Your task to perform on an android device: move a message to another label in the gmail app Image 0: 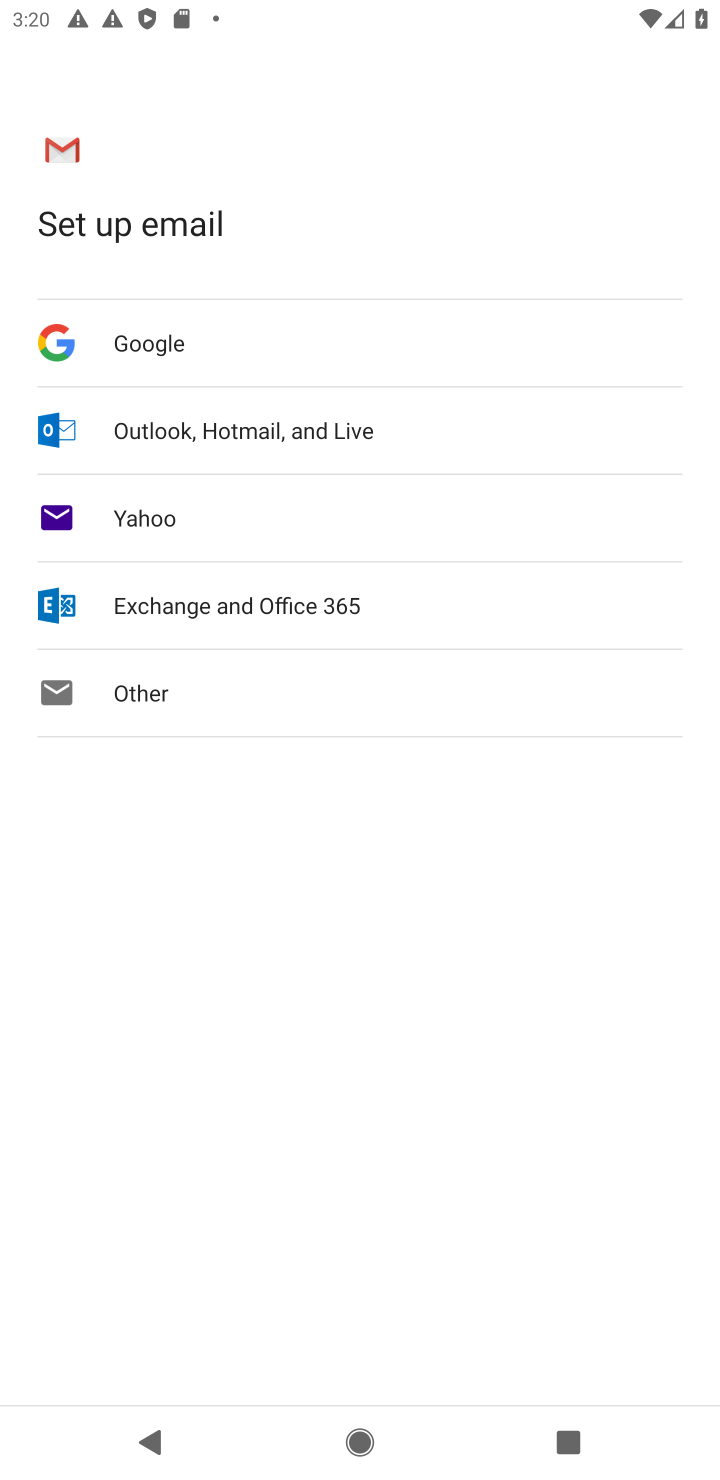
Step 0: press home button
Your task to perform on an android device: move a message to another label in the gmail app Image 1: 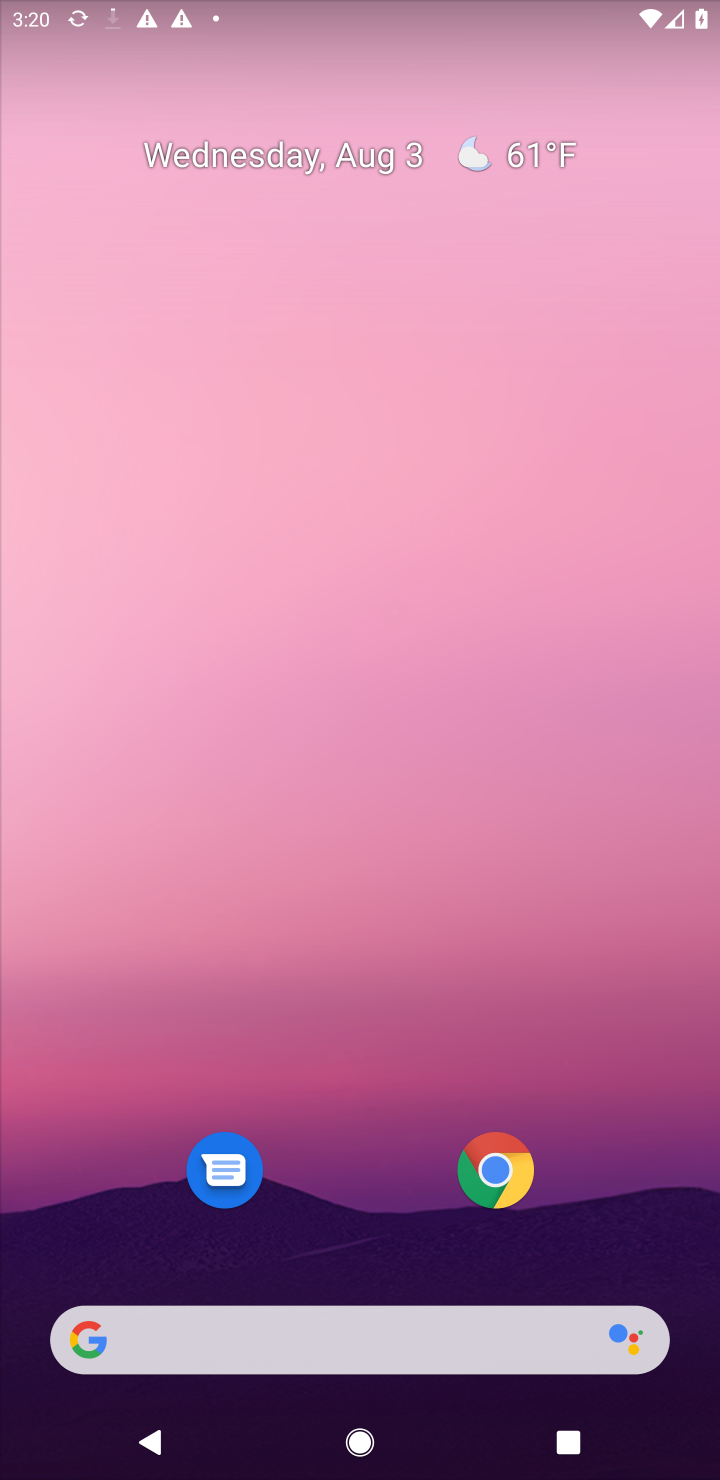
Step 1: drag from (664, 1223) to (340, 67)
Your task to perform on an android device: move a message to another label in the gmail app Image 2: 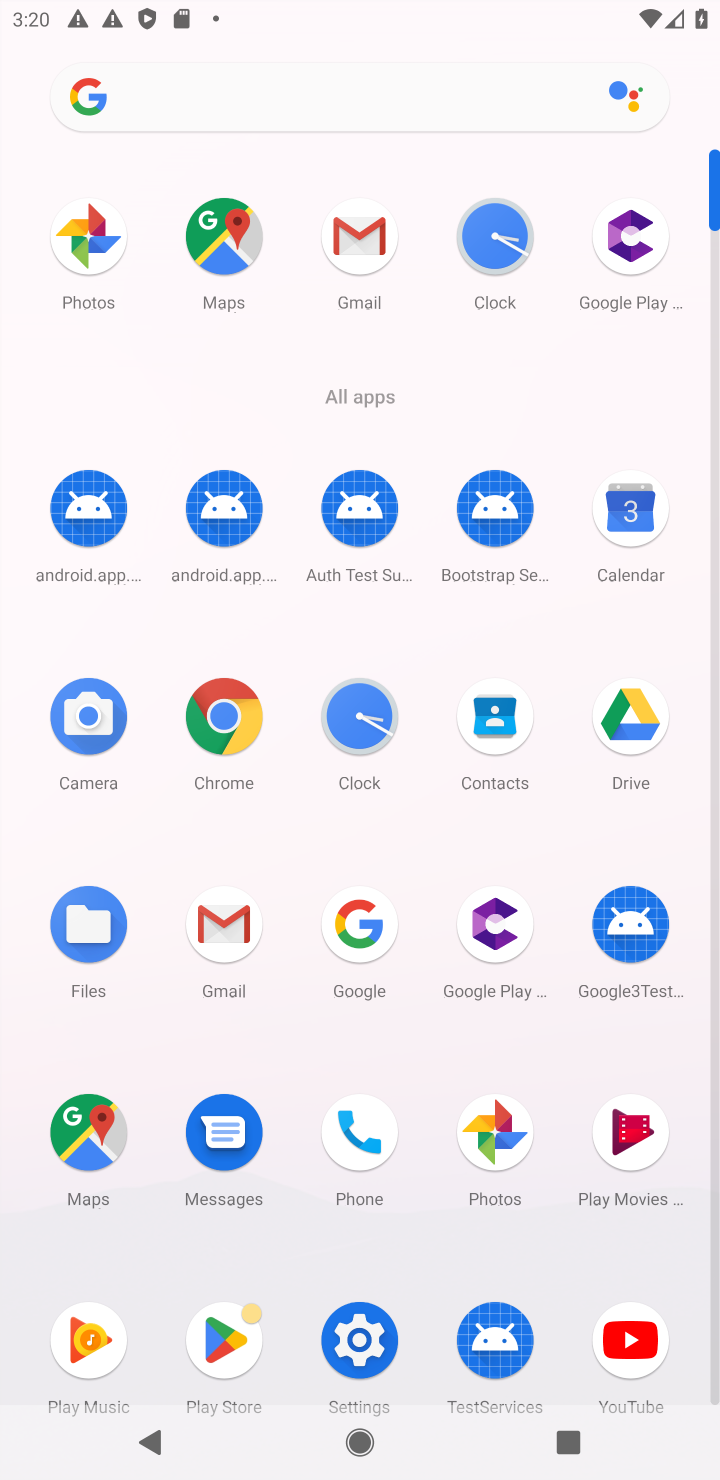
Step 2: click (352, 276)
Your task to perform on an android device: move a message to another label in the gmail app Image 3: 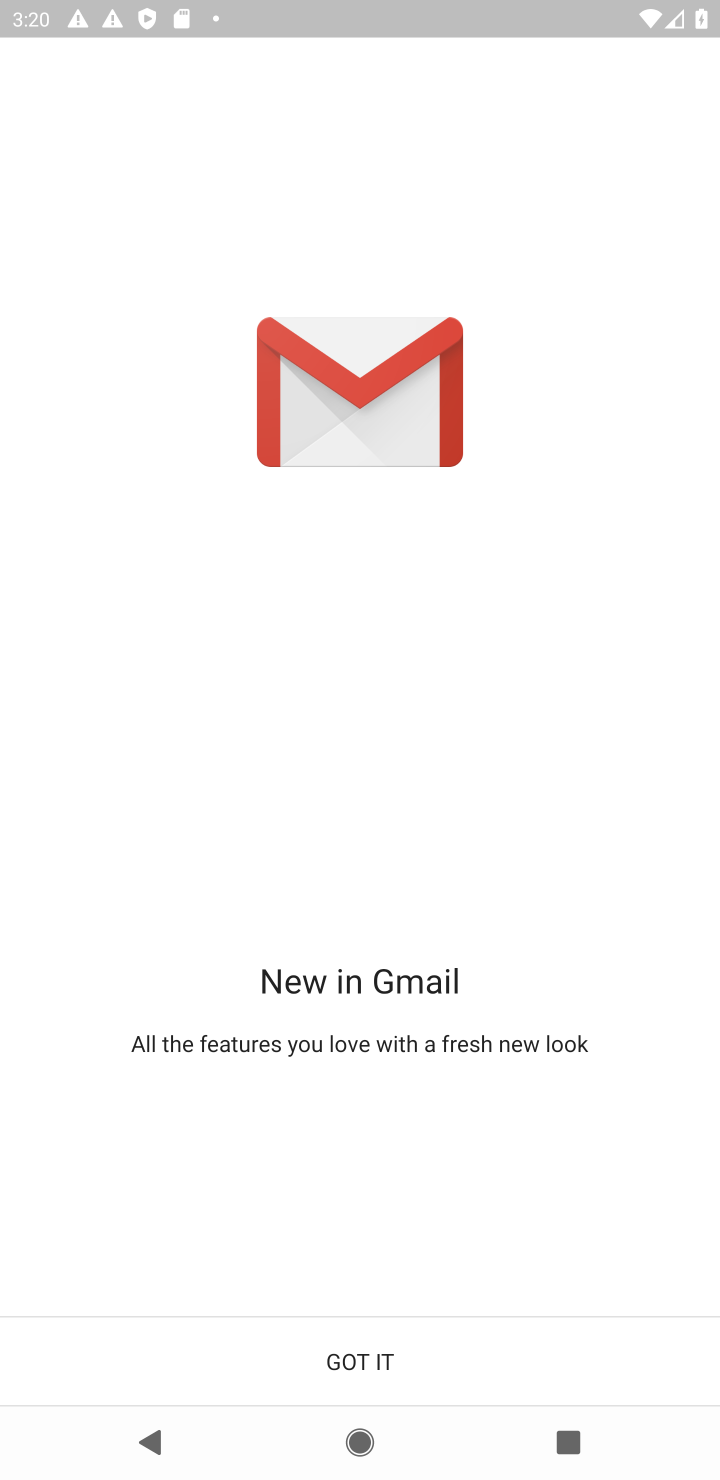
Step 3: click (364, 1374)
Your task to perform on an android device: move a message to another label in the gmail app Image 4: 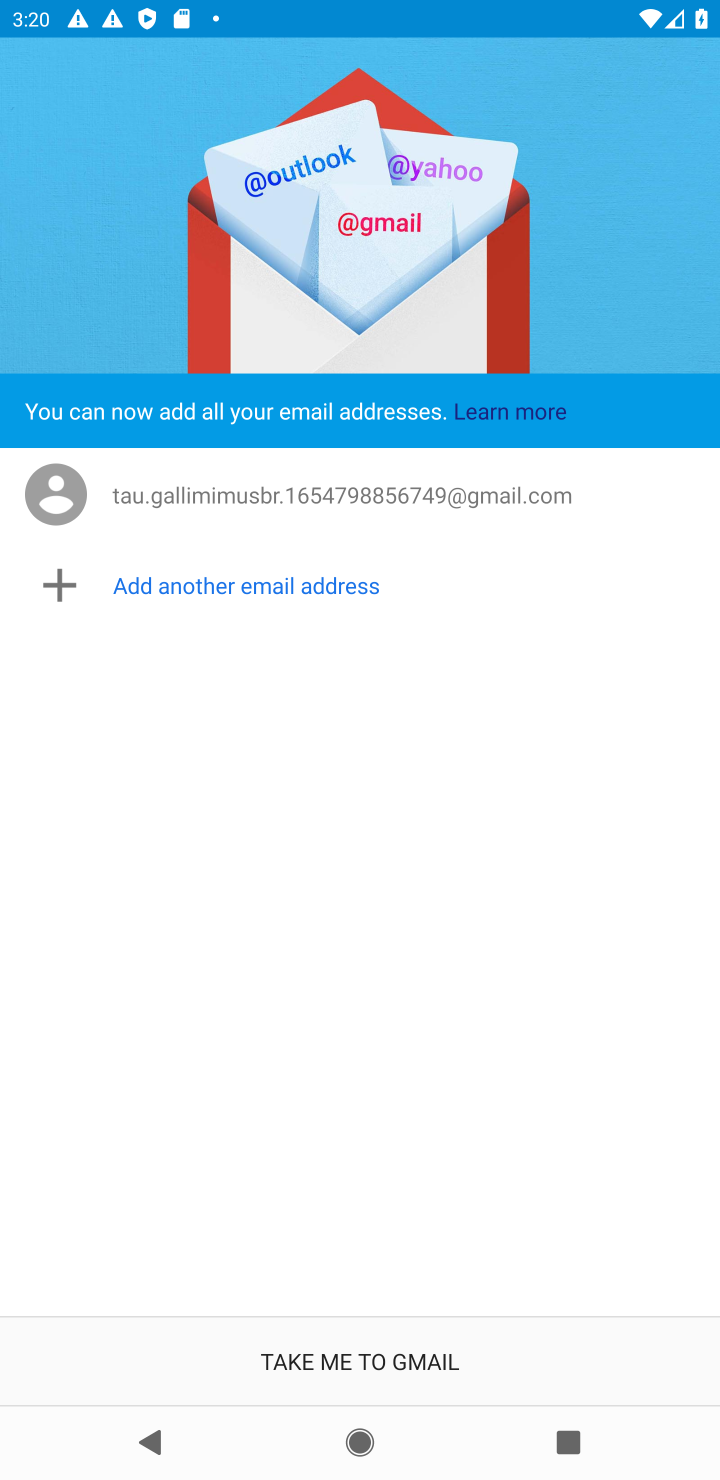
Step 4: click (389, 1355)
Your task to perform on an android device: move a message to another label in the gmail app Image 5: 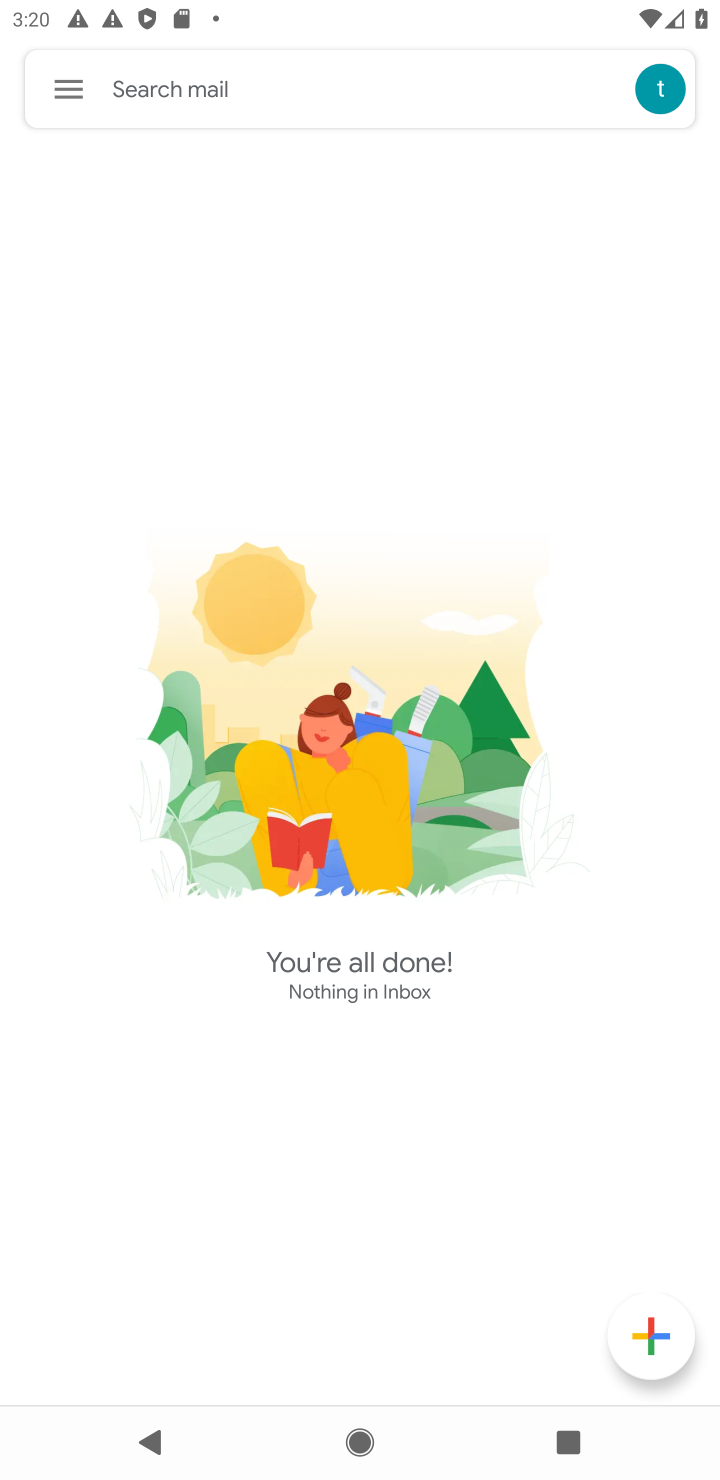
Step 5: task complete